Your task to perform on an android device: Go to Amazon Image 0: 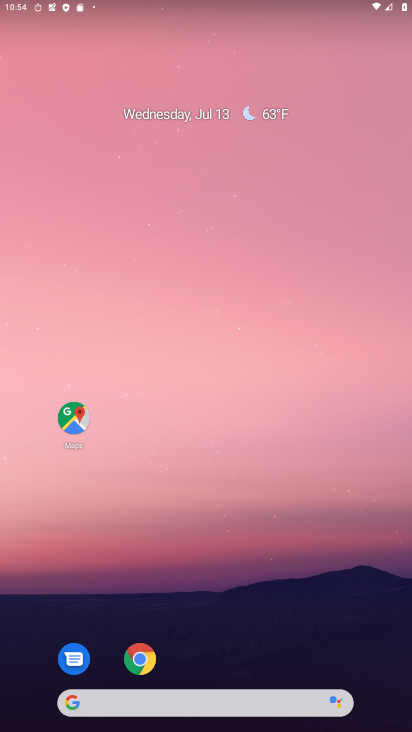
Step 0: drag from (348, 633) to (333, 115)
Your task to perform on an android device: Go to Amazon Image 1: 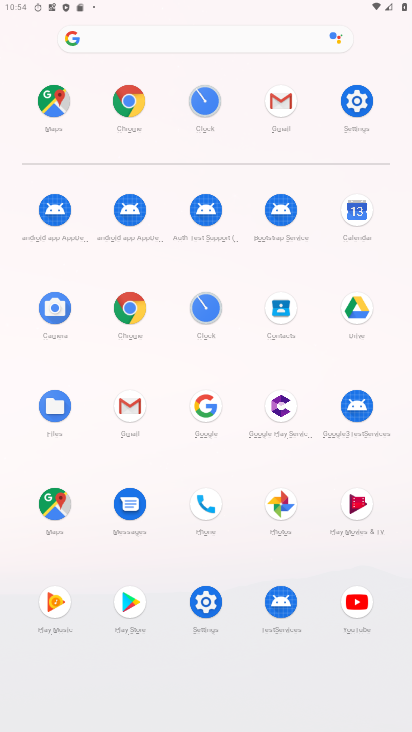
Step 1: click (125, 102)
Your task to perform on an android device: Go to Amazon Image 2: 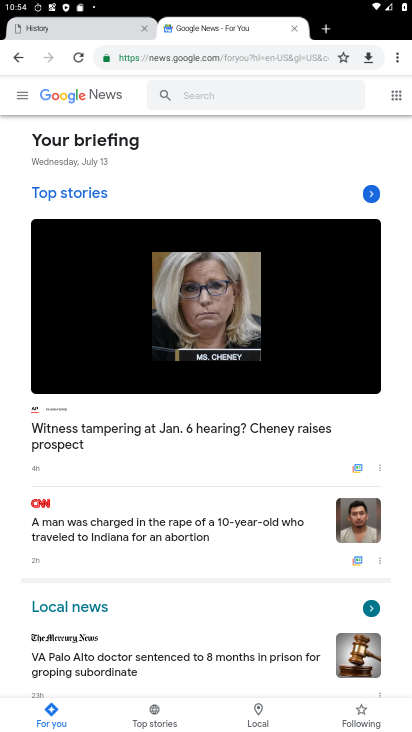
Step 2: click (222, 60)
Your task to perform on an android device: Go to Amazon Image 3: 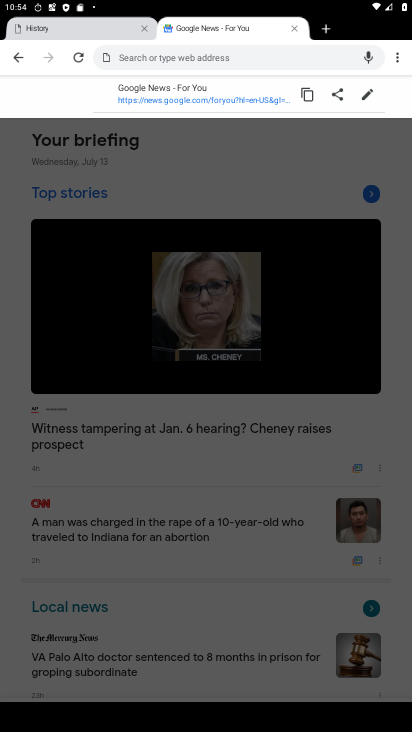
Step 3: type "amazon"
Your task to perform on an android device: Go to Amazon Image 4: 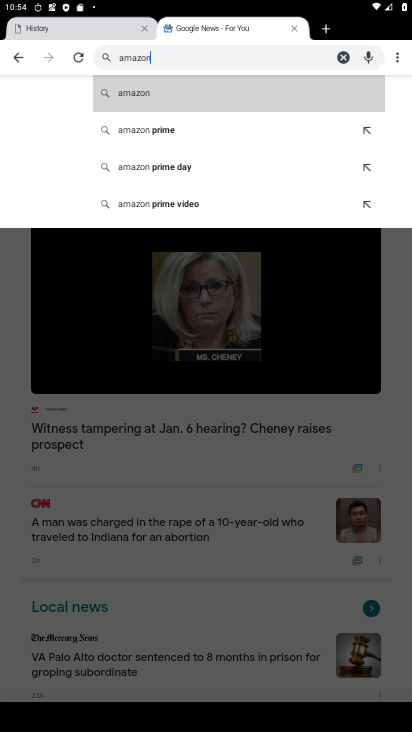
Step 4: click (131, 91)
Your task to perform on an android device: Go to Amazon Image 5: 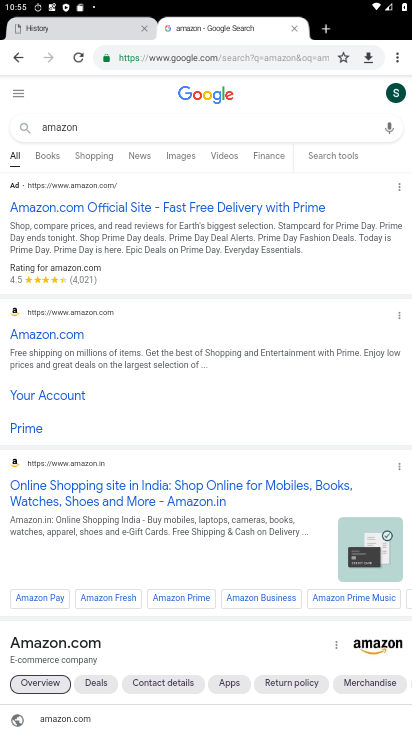
Step 5: click (69, 344)
Your task to perform on an android device: Go to Amazon Image 6: 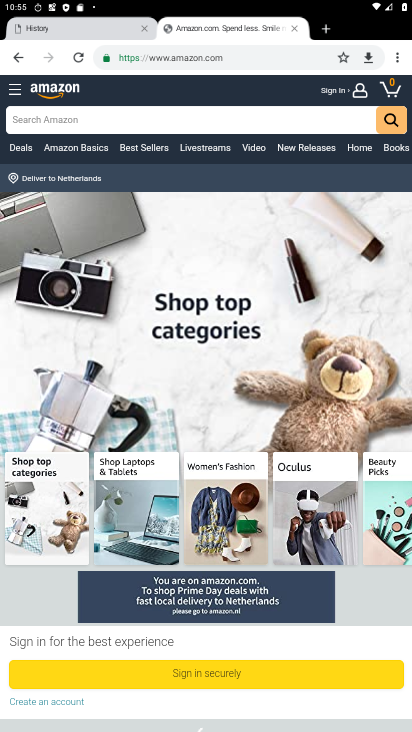
Step 6: task complete